Your task to perform on an android device: delete a single message in the gmail app Image 0: 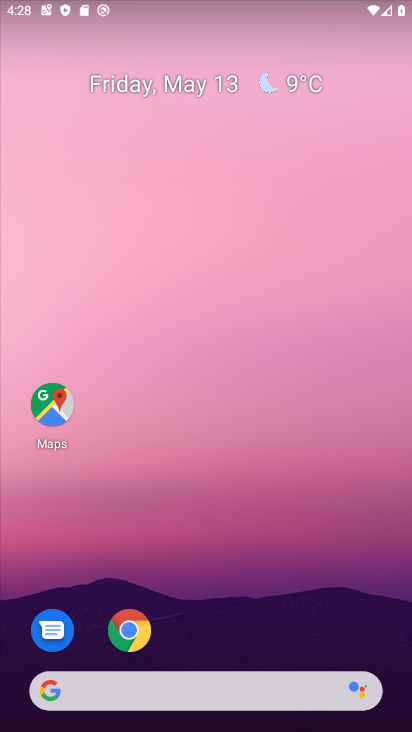
Step 0: drag from (256, 565) to (256, 29)
Your task to perform on an android device: delete a single message in the gmail app Image 1: 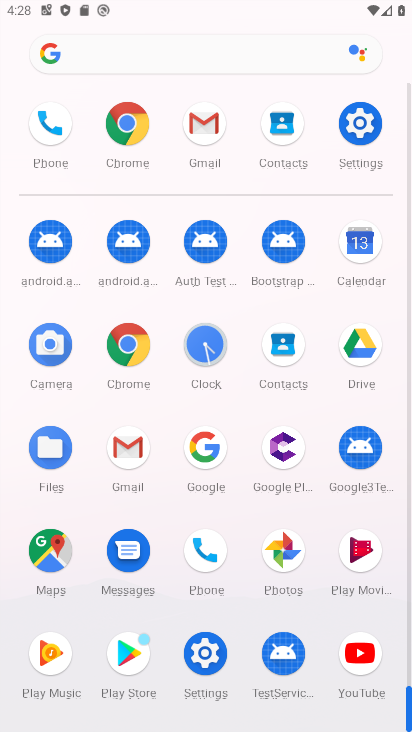
Step 1: drag from (3, 491) to (29, 232)
Your task to perform on an android device: delete a single message in the gmail app Image 2: 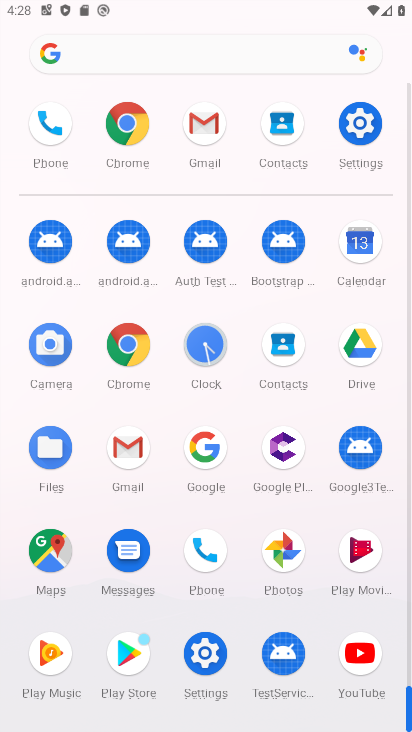
Step 2: click (123, 442)
Your task to perform on an android device: delete a single message in the gmail app Image 3: 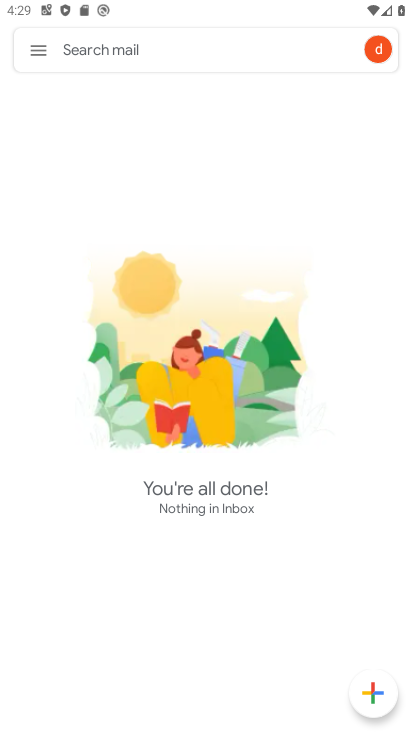
Step 3: click (39, 47)
Your task to perform on an android device: delete a single message in the gmail app Image 4: 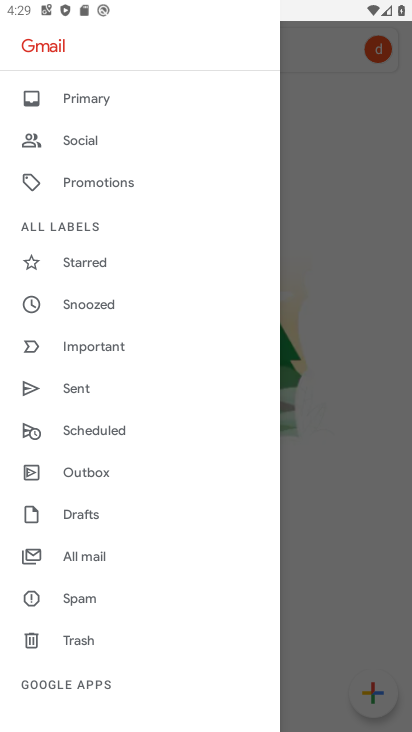
Step 4: drag from (148, 535) to (160, 126)
Your task to perform on an android device: delete a single message in the gmail app Image 5: 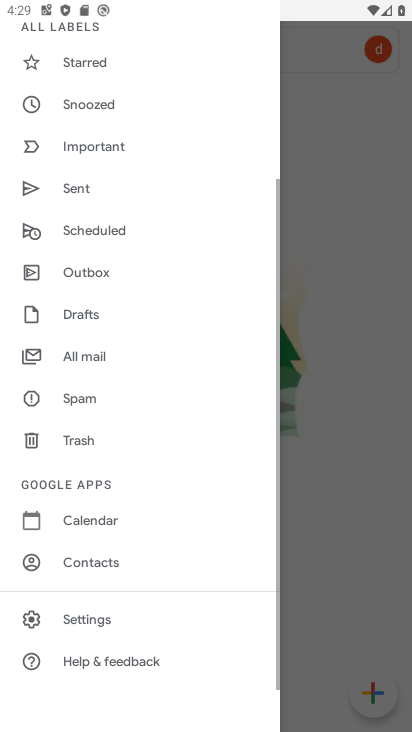
Step 5: click (93, 349)
Your task to perform on an android device: delete a single message in the gmail app Image 6: 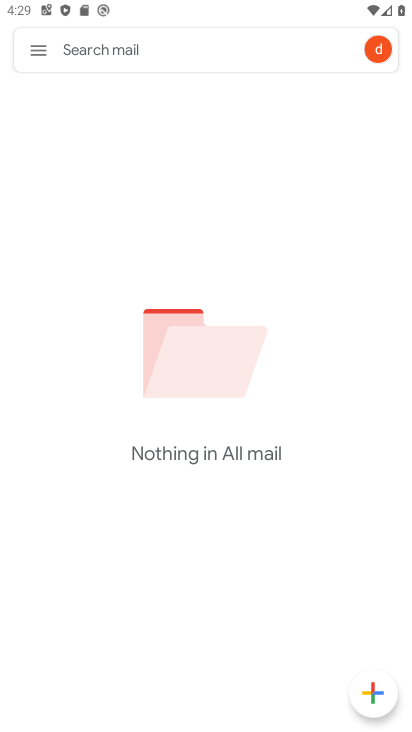
Step 6: click (40, 50)
Your task to perform on an android device: delete a single message in the gmail app Image 7: 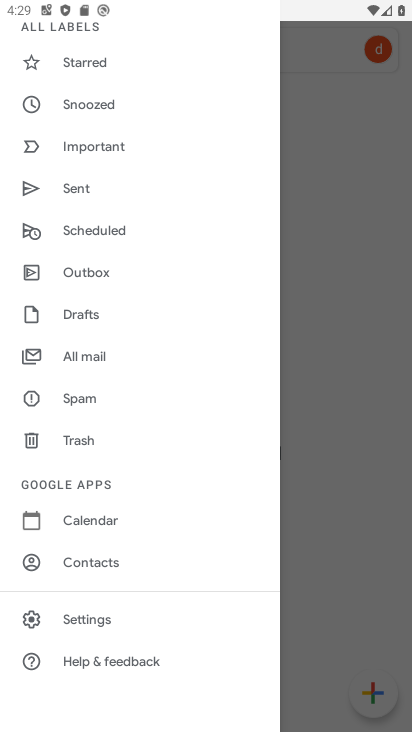
Step 7: drag from (170, 205) to (185, 555)
Your task to perform on an android device: delete a single message in the gmail app Image 8: 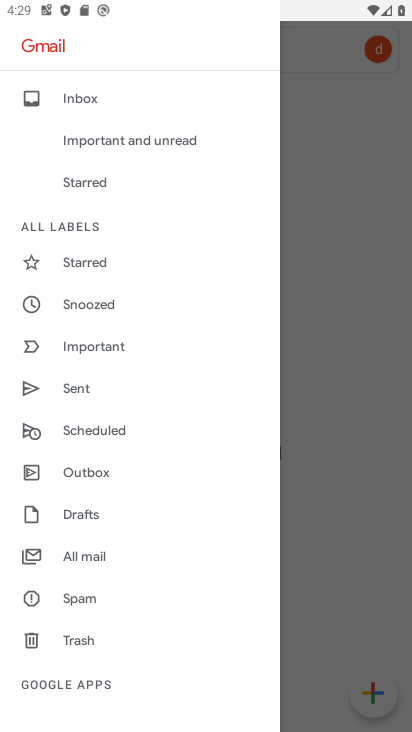
Step 8: click (110, 90)
Your task to perform on an android device: delete a single message in the gmail app Image 9: 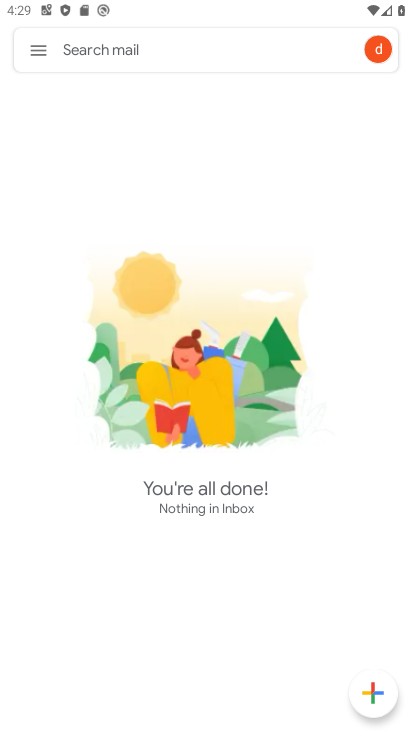
Step 9: click (39, 42)
Your task to perform on an android device: delete a single message in the gmail app Image 10: 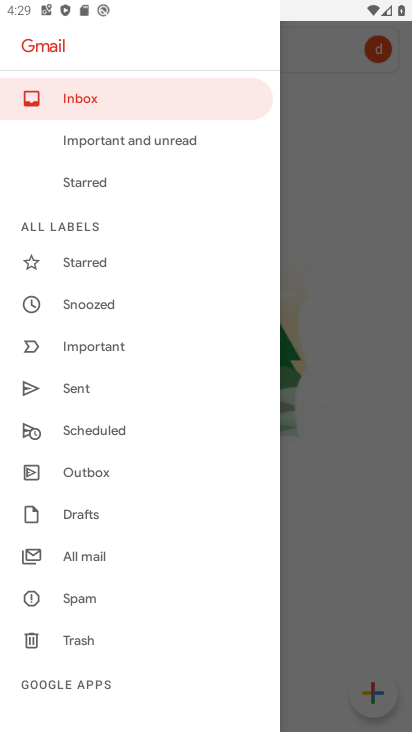
Step 10: drag from (147, 592) to (183, 194)
Your task to perform on an android device: delete a single message in the gmail app Image 11: 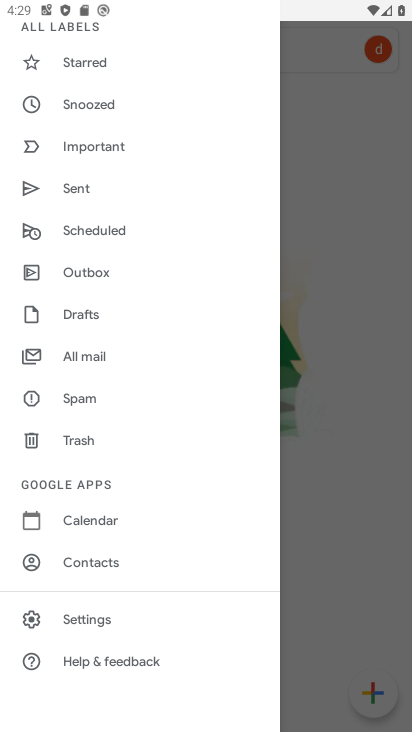
Step 11: click (106, 345)
Your task to perform on an android device: delete a single message in the gmail app Image 12: 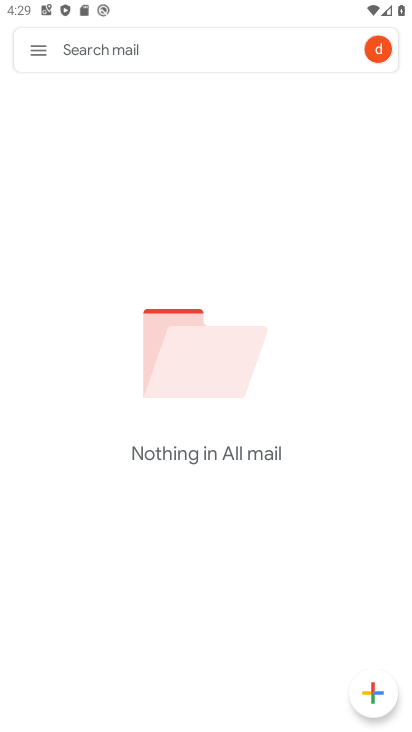
Step 12: click (42, 54)
Your task to perform on an android device: delete a single message in the gmail app Image 13: 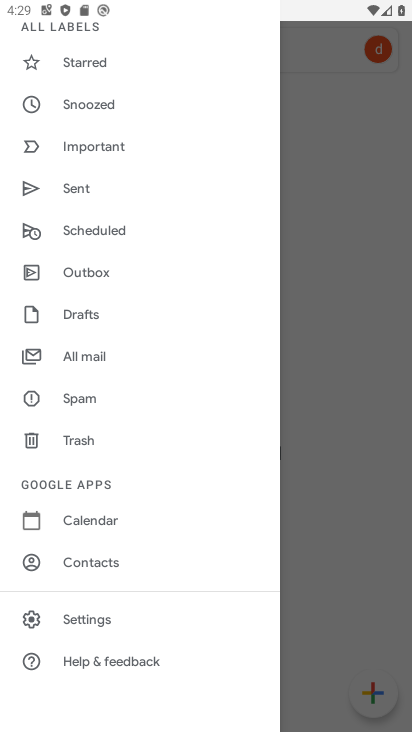
Step 13: drag from (152, 216) to (193, 523)
Your task to perform on an android device: delete a single message in the gmail app Image 14: 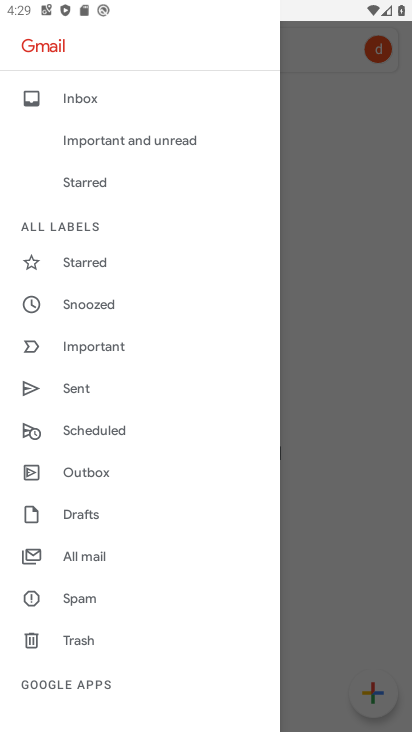
Step 14: click (116, 344)
Your task to perform on an android device: delete a single message in the gmail app Image 15: 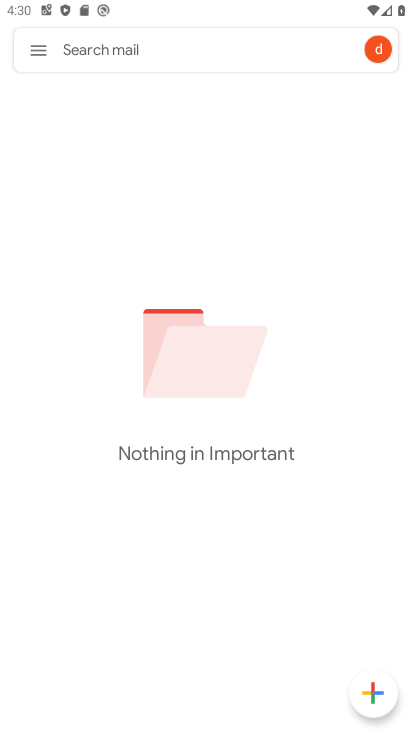
Step 15: task complete